Your task to perform on an android device: Open Youtube and go to "Your channel" Image 0: 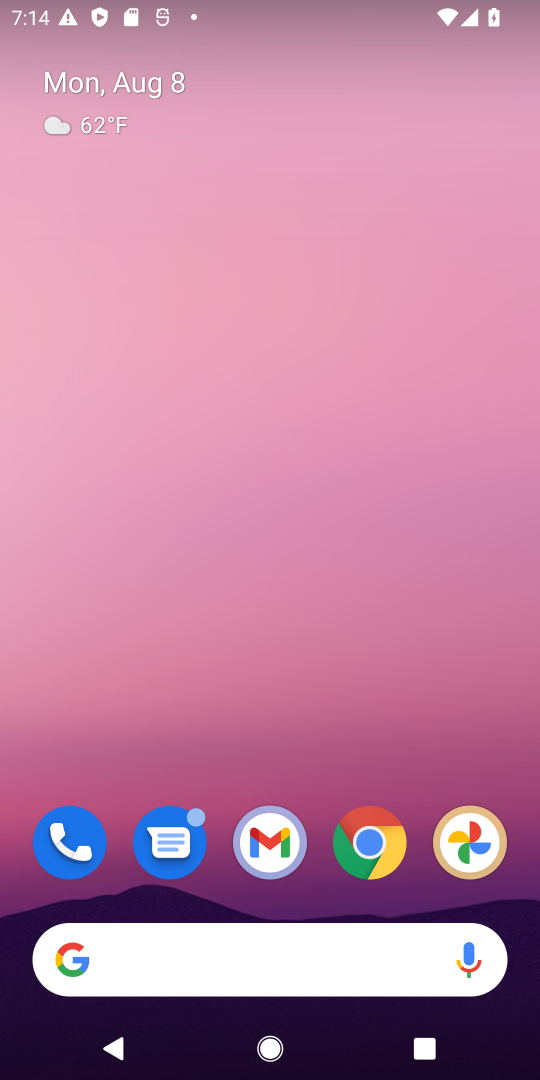
Step 0: drag from (286, 753) to (429, 6)
Your task to perform on an android device: Open Youtube and go to "Your channel" Image 1: 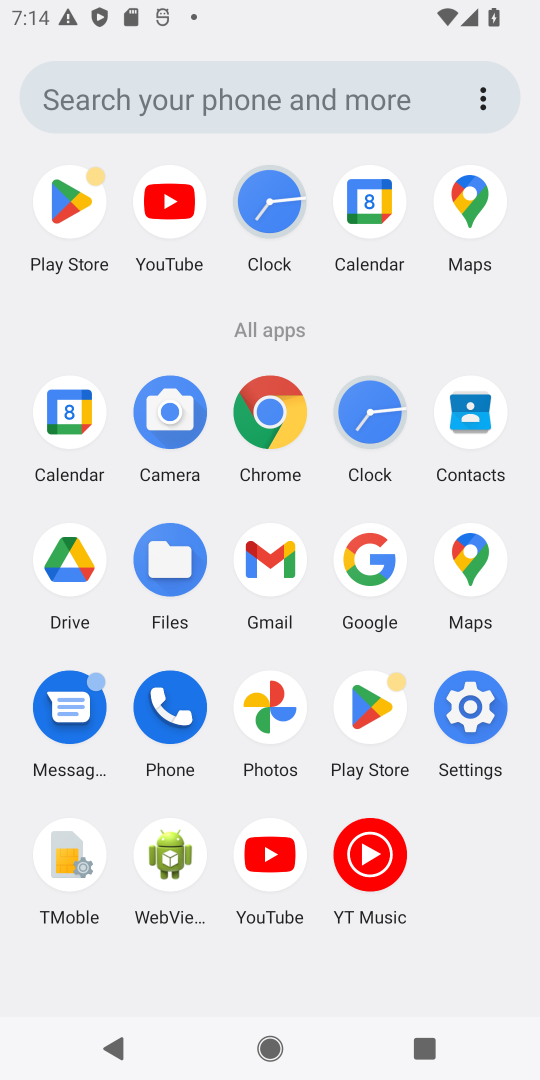
Step 1: click (271, 863)
Your task to perform on an android device: Open Youtube and go to "Your channel" Image 2: 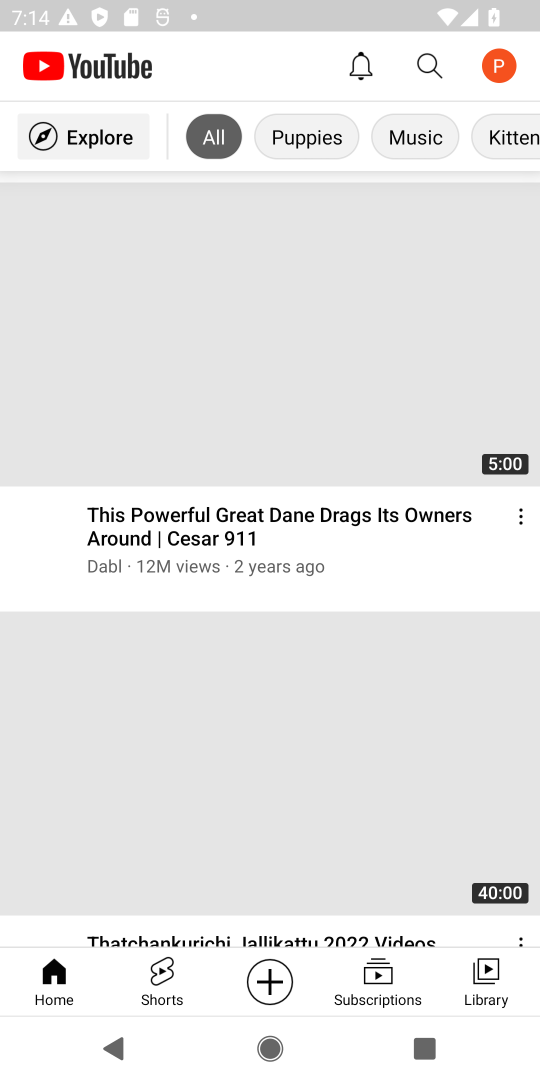
Step 2: click (508, 70)
Your task to perform on an android device: Open Youtube and go to "Your channel" Image 3: 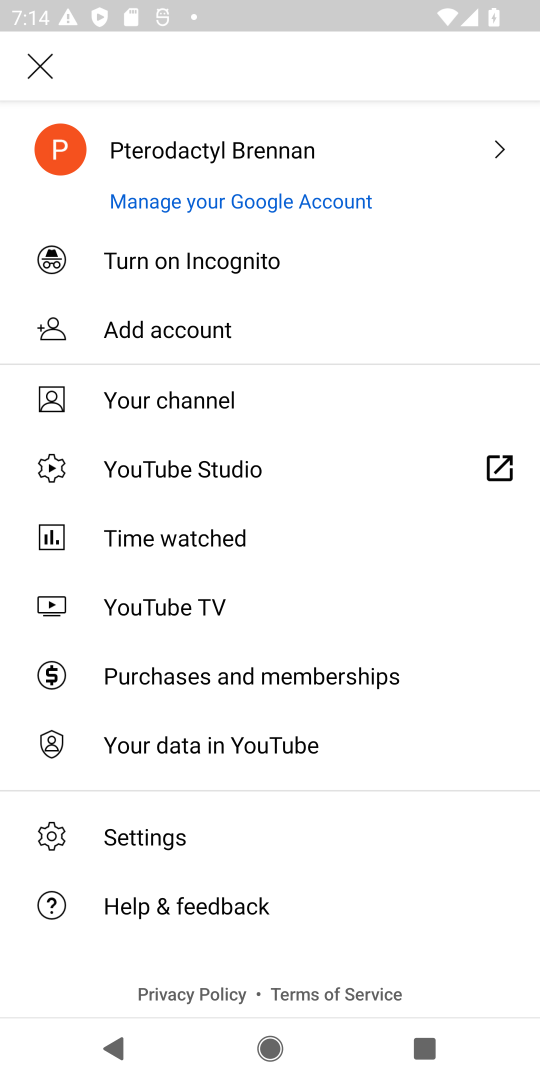
Step 3: click (185, 392)
Your task to perform on an android device: Open Youtube and go to "Your channel" Image 4: 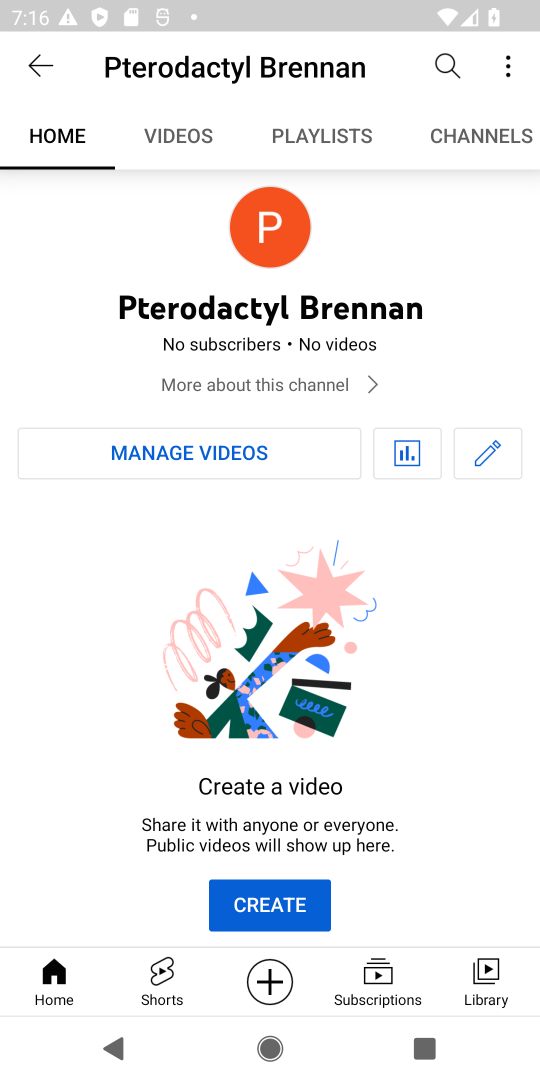
Step 4: task complete